Your task to perform on an android device: Open Amazon Image 0: 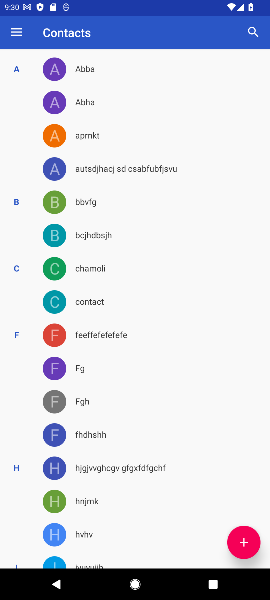
Step 0: press home button
Your task to perform on an android device: Open Amazon Image 1: 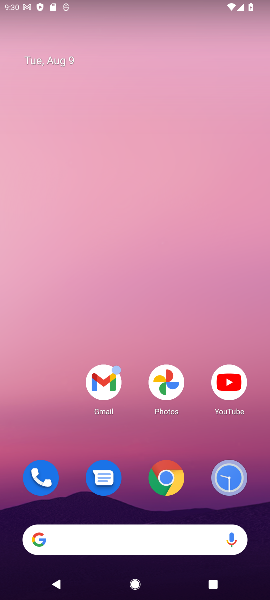
Step 1: drag from (55, 408) to (49, 52)
Your task to perform on an android device: Open Amazon Image 2: 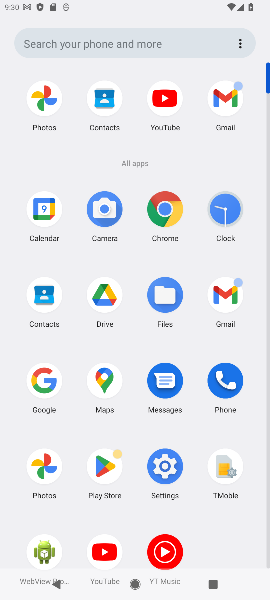
Step 2: click (172, 209)
Your task to perform on an android device: Open Amazon Image 3: 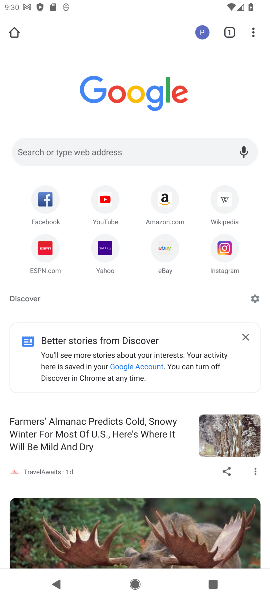
Step 3: click (249, 33)
Your task to perform on an android device: Open Amazon Image 4: 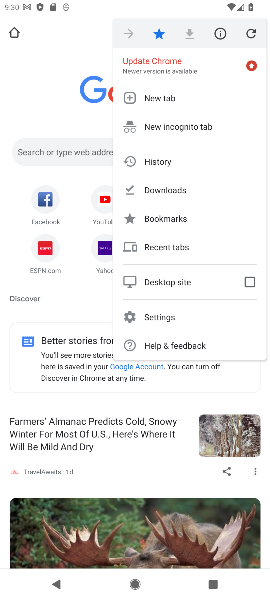
Step 4: click (160, 219)
Your task to perform on an android device: Open Amazon Image 5: 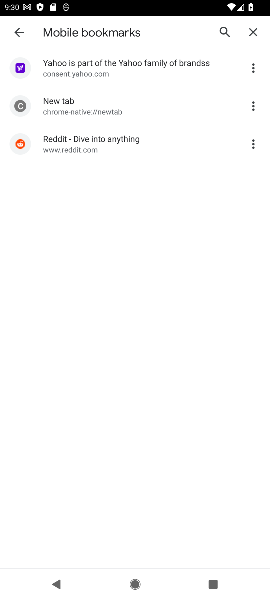
Step 5: click (22, 32)
Your task to perform on an android device: Open Amazon Image 6: 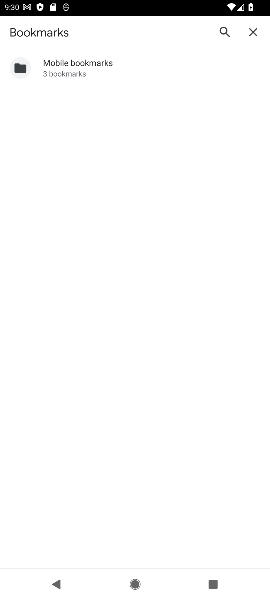
Step 6: click (109, 67)
Your task to perform on an android device: Open Amazon Image 7: 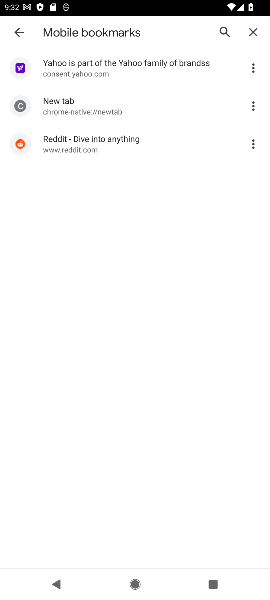
Step 7: click (17, 31)
Your task to perform on an android device: Open Amazon Image 8: 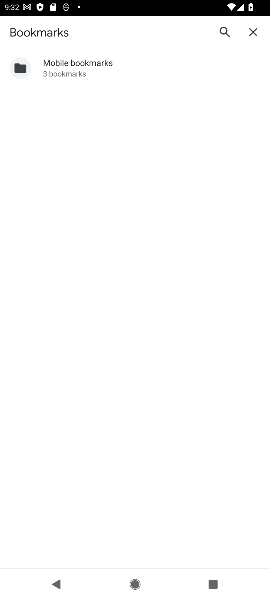
Step 8: press home button
Your task to perform on an android device: Open Amazon Image 9: 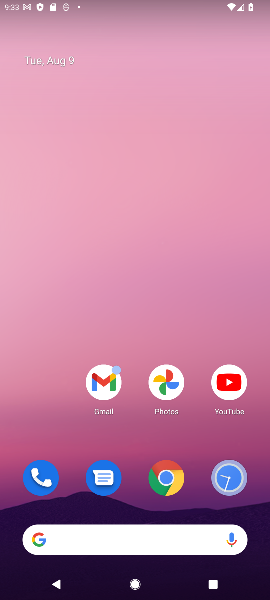
Step 9: drag from (63, 407) to (84, 143)
Your task to perform on an android device: Open Amazon Image 10: 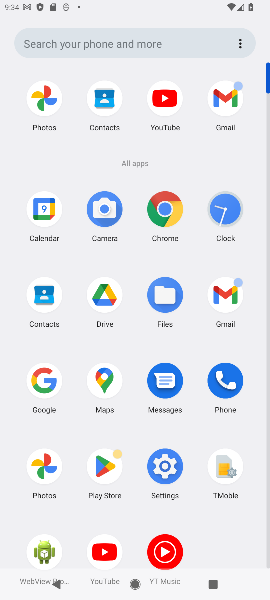
Step 10: click (165, 212)
Your task to perform on an android device: Open Amazon Image 11: 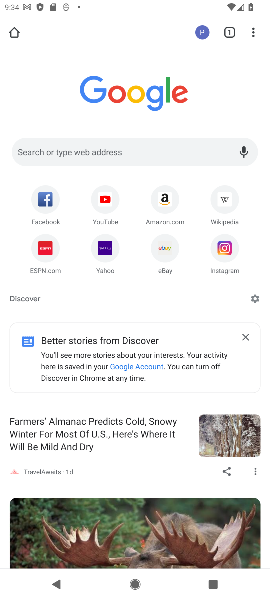
Step 11: click (170, 201)
Your task to perform on an android device: Open Amazon Image 12: 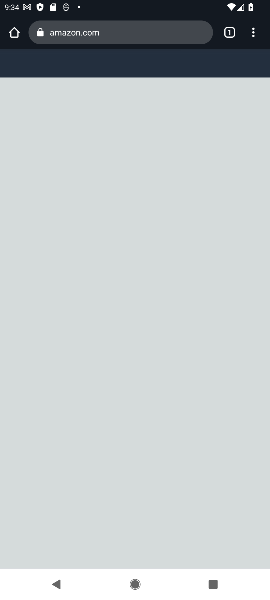
Step 12: task complete